Your task to perform on an android device: Open Google Image 0: 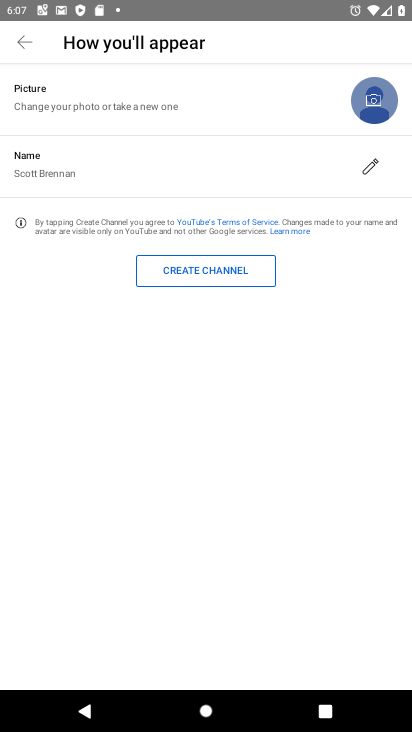
Step 0: press home button
Your task to perform on an android device: Open Google Image 1: 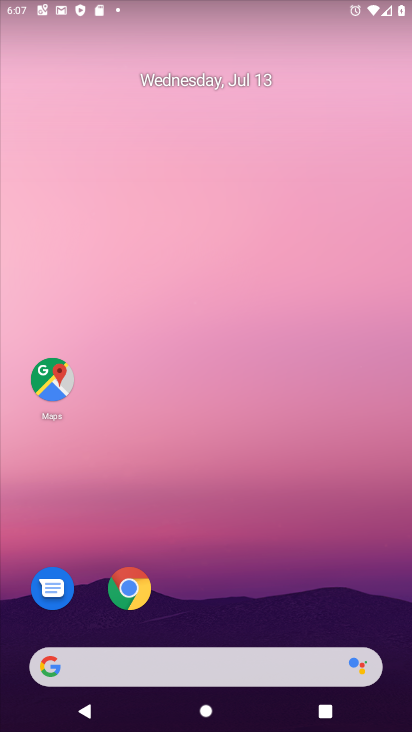
Step 1: click (172, 652)
Your task to perform on an android device: Open Google Image 2: 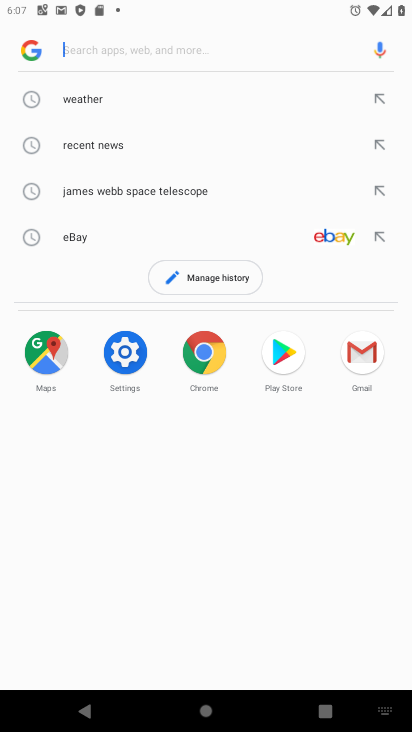
Step 2: task complete